Your task to perform on an android device: check storage Image 0: 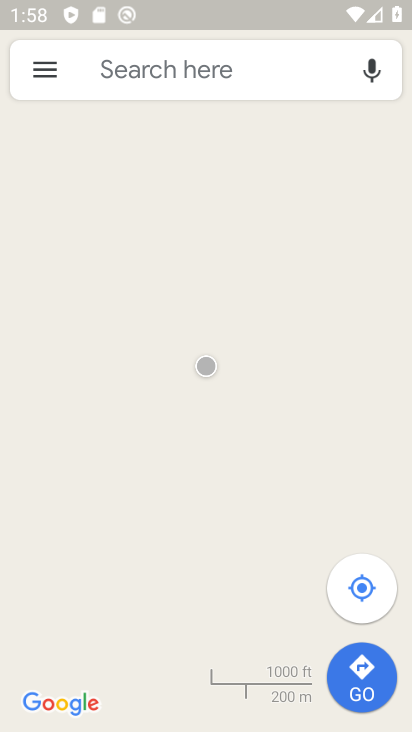
Step 0: press home button
Your task to perform on an android device: check storage Image 1: 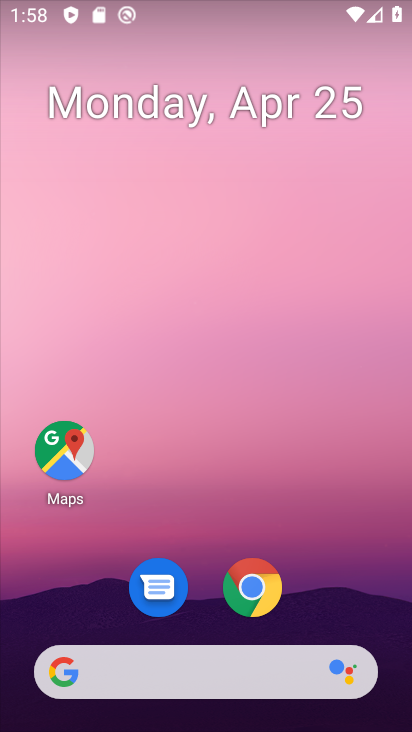
Step 1: drag from (363, 609) to (337, 82)
Your task to perform on an android device: check storage Image 2: 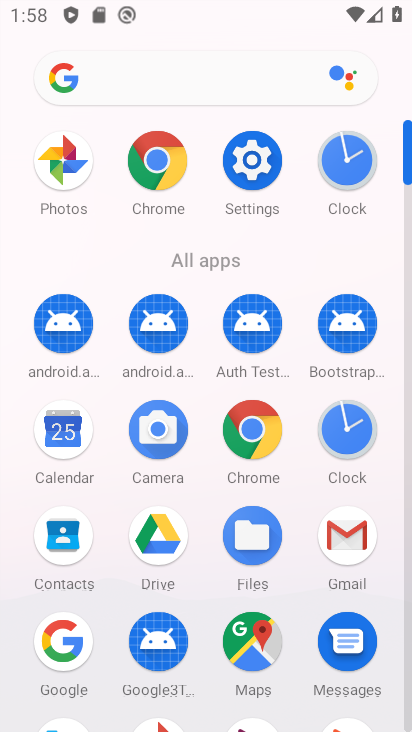
Step 2: click (264, 159)
Your task to perform on an android device: check storage Image 3: 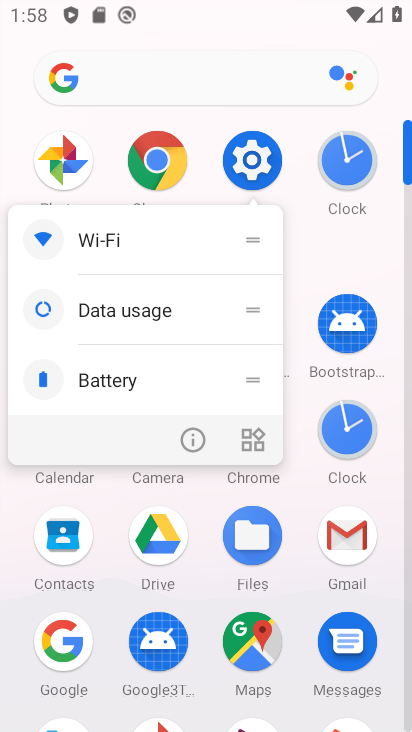
Step 3: click (249, 169)
Your task to perform on an android device: check storage Image 4: 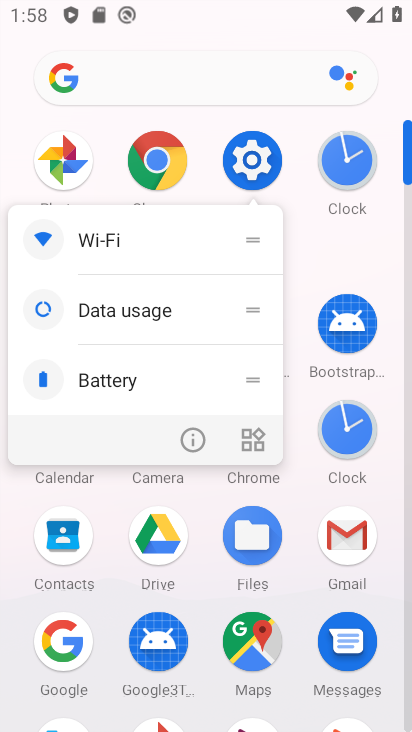
Step 4: click (249, 148)
Your task to perform on an android device: check storage Image 5: 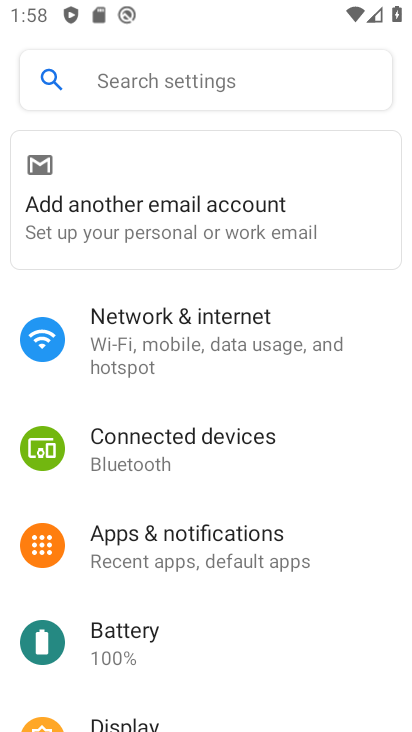
Step 5: drag from (252, 676) to (309, 207)
Your task to perform on an android device: check storage Image 6: 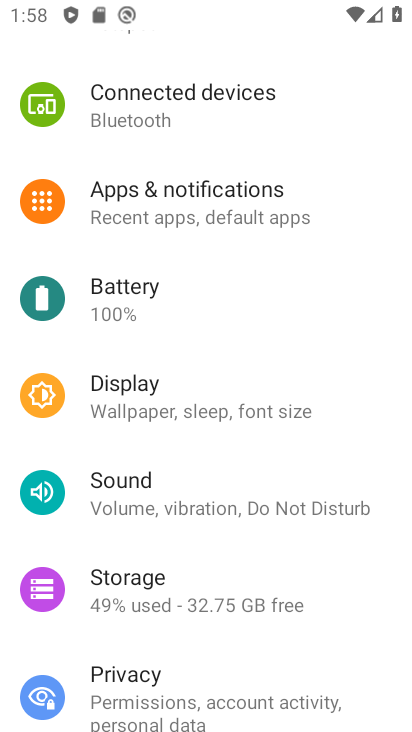
Step 6: click (199, 583)
Your task to perform on an android device: check storage Image 7: 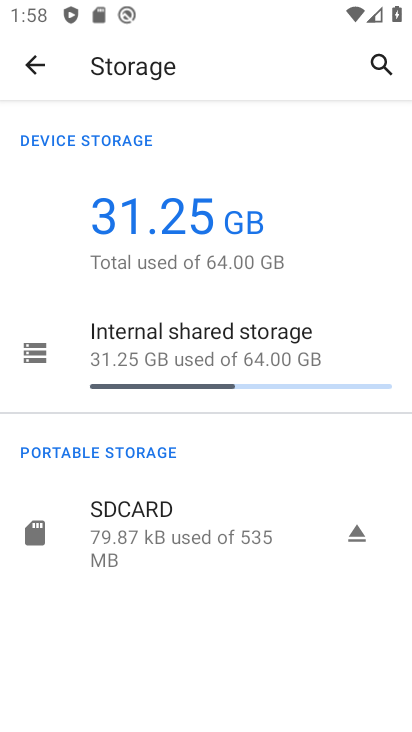
Step 7: task complete